Your task to perform on an android device: star an email in the gmail app Image 0: 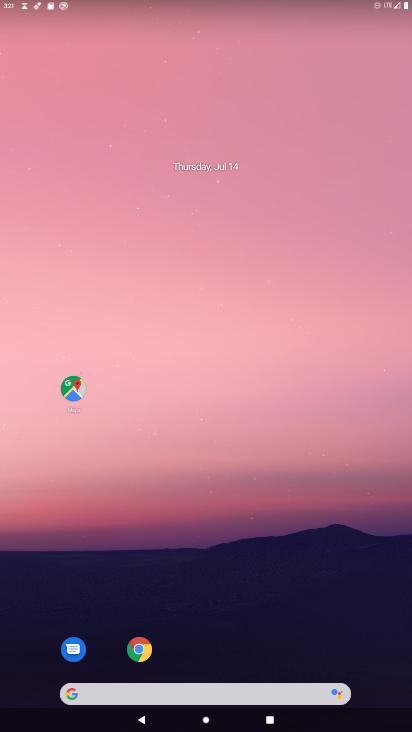
Step 0: drag from (330, 535) to (284, 0)
Your task to perform on an android device: star an email in the gmail app Image 1: 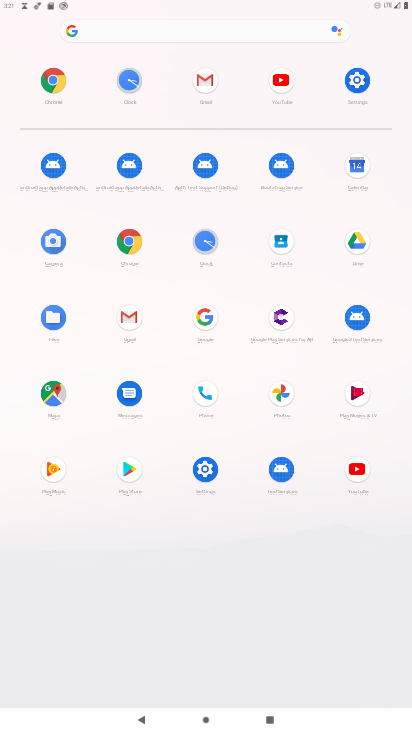
Step 1: click (128, 317)
Your task to perform on an android device: star an email in the gmail app Image 2: 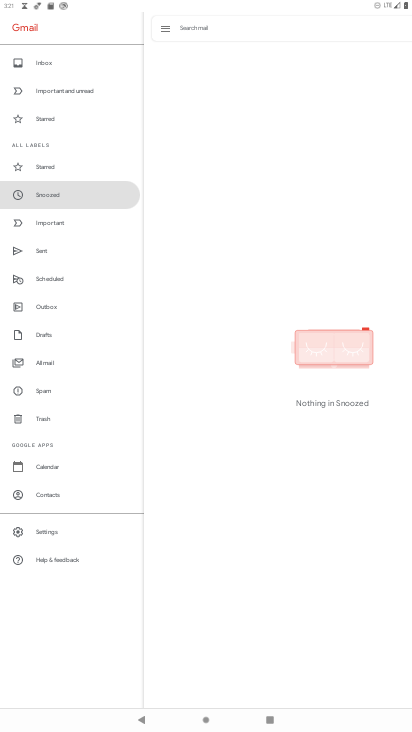
Step 2: click (68, 195)
Your task to perform on an android device: star an email in the gmail app Image 3: 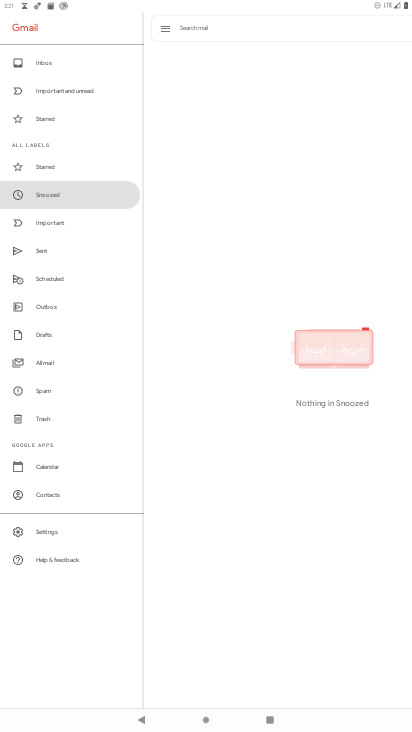
Step 3: click (66, 173)
Your task to perform on an android device: star an email in the gmail app Image 4: 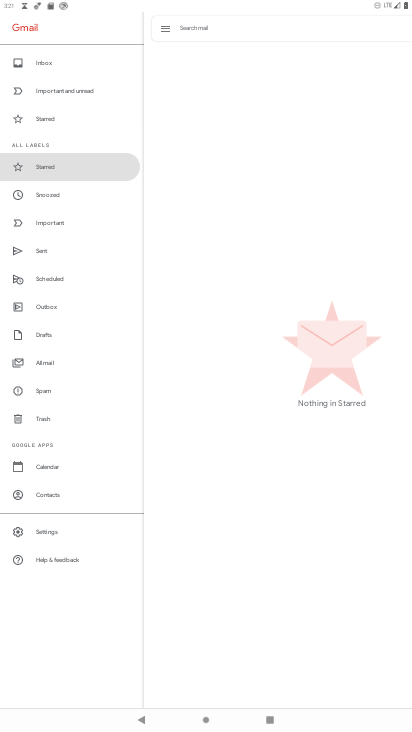
Step 4: task complete